Your task to perform on an android device: Toggle the flashlight Image 0: 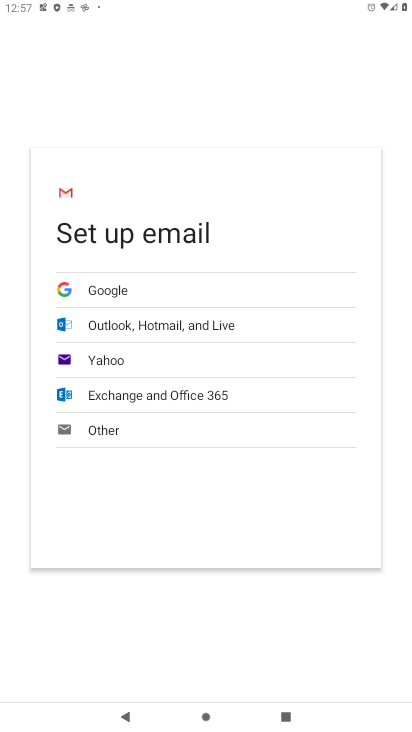
Step 0: press home button
Your task to perform on an android device: Toggle the flashlight Image 1: 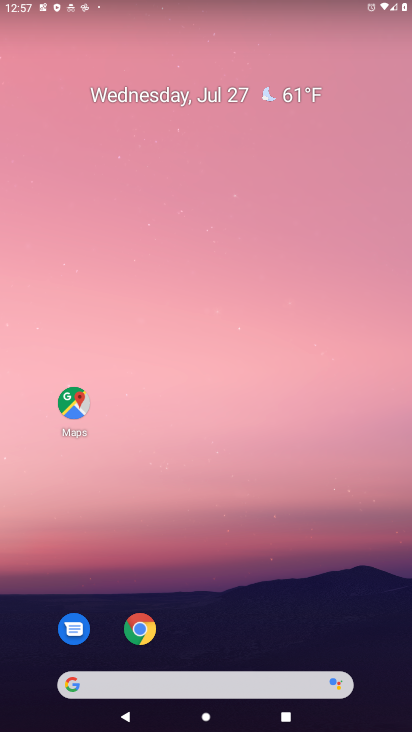
Step 1: drag from (309, 612) to (315, 276)
Your task to perform on an android device: Toggle the flashlight Image 2: 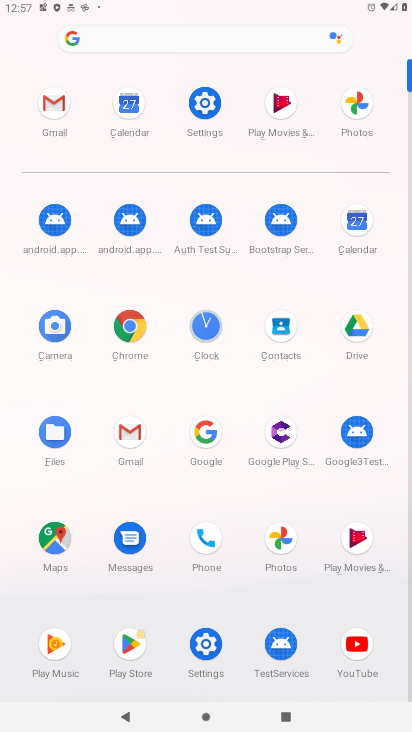
Step 2: click (201, 124)
Your task to perform on an android device: Toggle the flashlight Image 3: 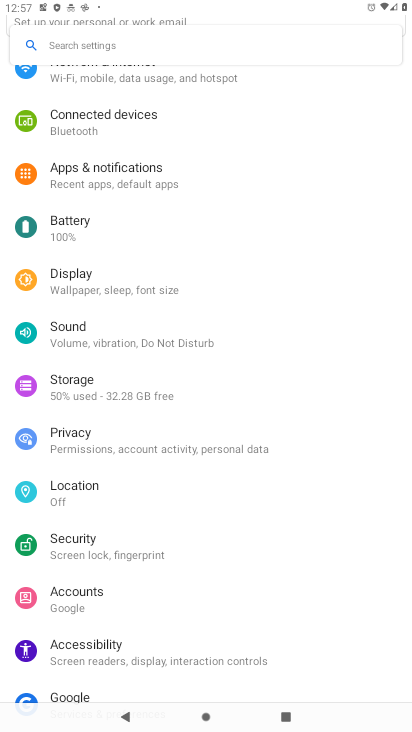
Step 3: task complete